Your task to perform on an android device: turn off wifi Image 0: 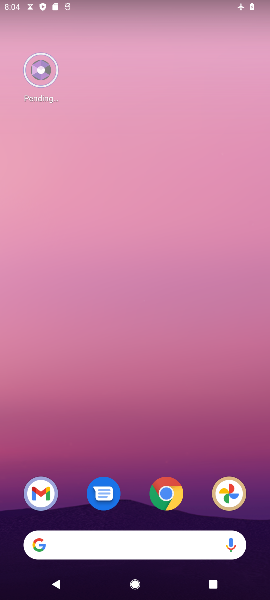
Step 0: drag from (121, 502) to (145, 170)
Your task to perform on an android device: turn off wifi Image 1: 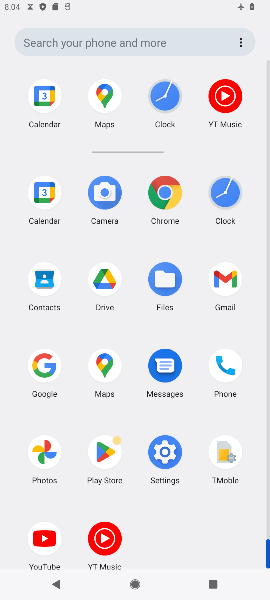
Step 1: click (171, 451)
Your task to perform on an android device: turn off wifi Image 2: 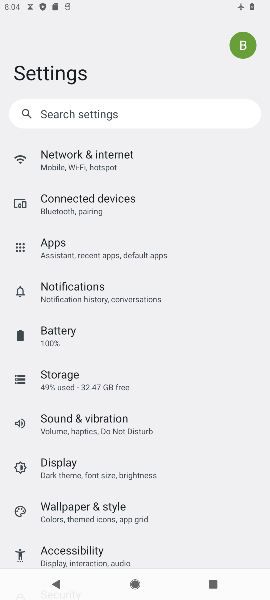
Step 2: click (99, 147)
Your task to perform on an android device: turn off wifi Image 3: 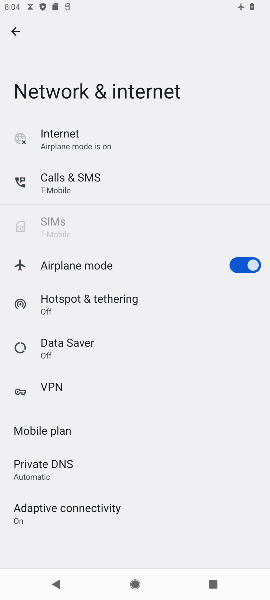
Step 3: click (68, 133)
Your task to perform on an android device: turn off wifi Image 4: 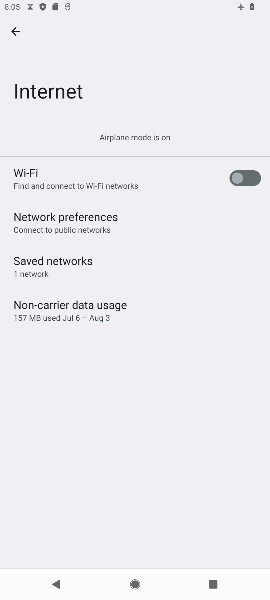
Step 4: task complete